Your task to perform on an android device: Is it going to rain today? Image 0: 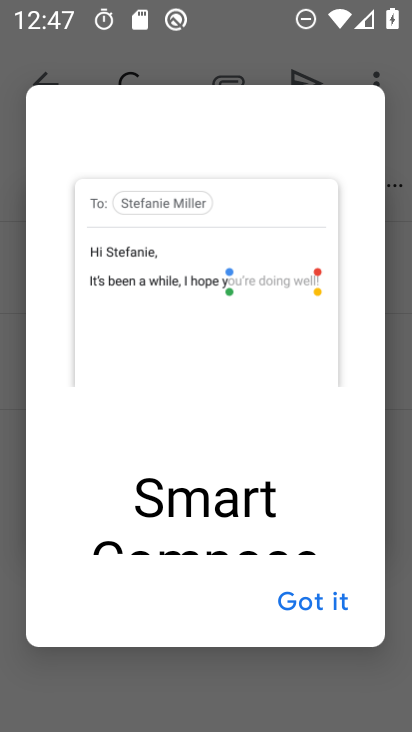
Step 0: press home button
Your task to perform on an android device: Is it going to rain today? Image 1: 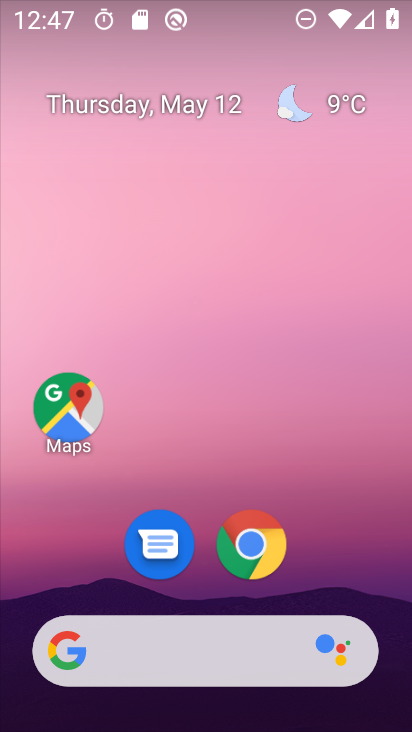
Step 1: click (289, 105)
Your task to perform on an android device: Is it going to rain today? Image 2: 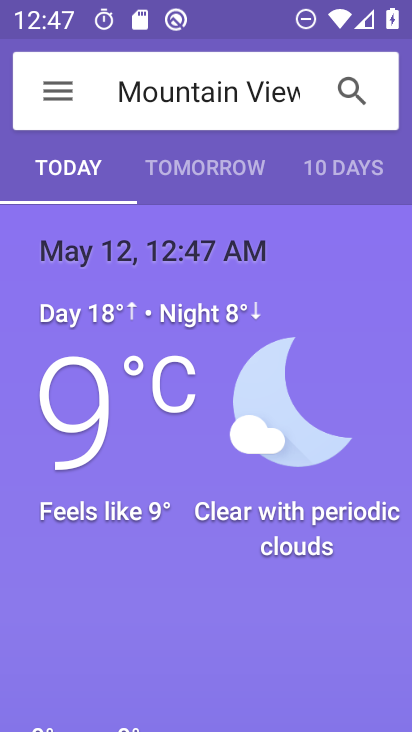
Step 2: task complete